Your task to perform on an android device: Go to settings Image 0: 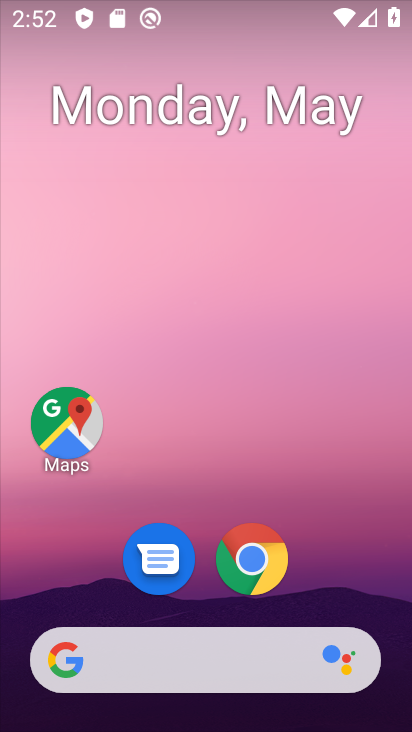
Step 0: drag from (284, 666) to (211, 36)
Your task to perform on an android device: Go to settings Image 1: 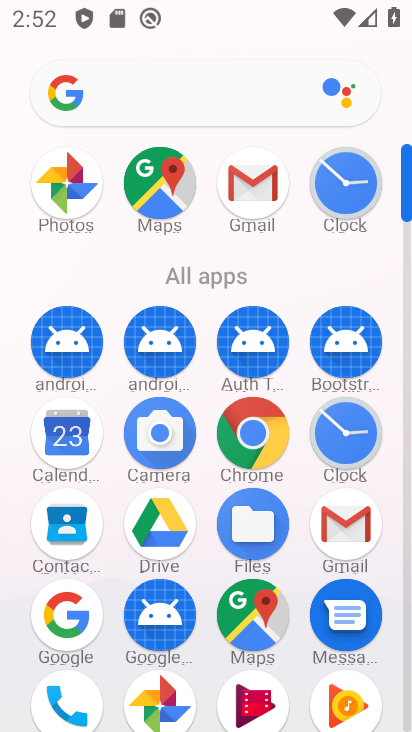
Step 1: click (299, 213)
Your task to perform on an android device: Go to settings Image 2: 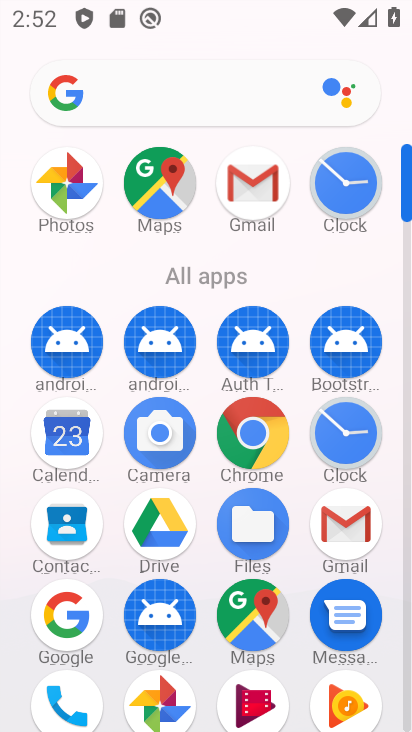
Step 2: drag from (327, 461) to (345, 107)
Your task to perform on an android device: Go to settings Image 3: 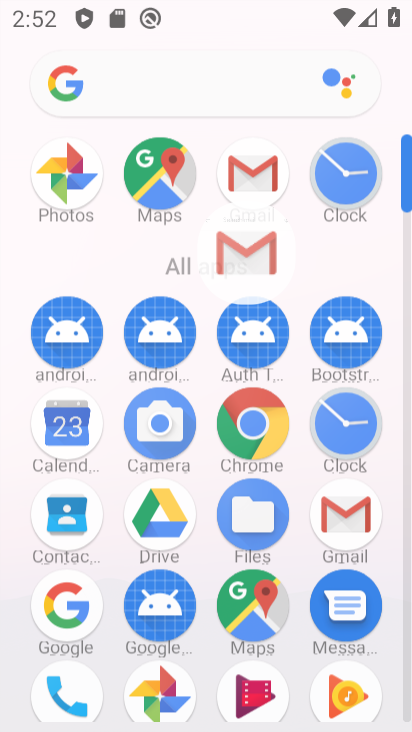
Step 3: drag from (266, 396) to (254, 131)
Your task to perform on an android device: Go to settings Image 4: 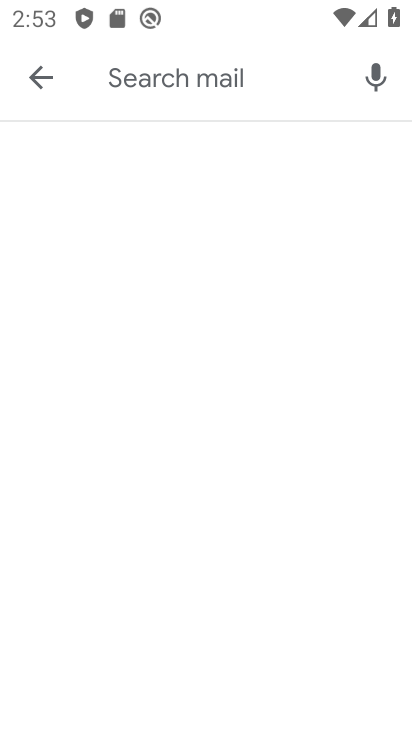
Step 4: click (33, 78)
Your task to perform on an android device: Go to settings Image 5: 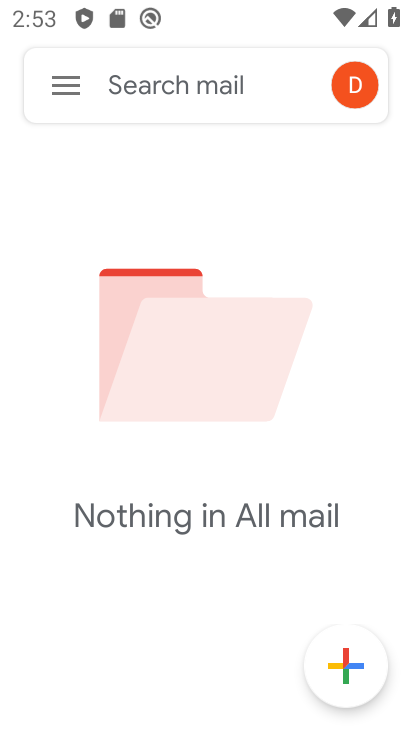
Step 5: click (57, 85)
Your task to perform on an android device: Go to settings Image 6: 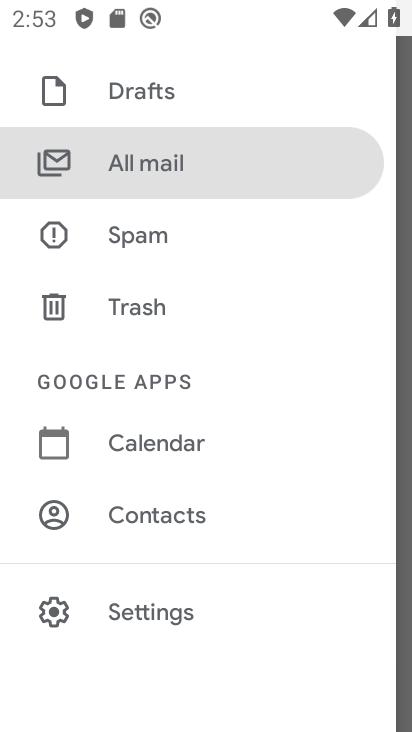
Step 6: click (149, 602)
Your task to perform on an android device: Go to settings Image 7: 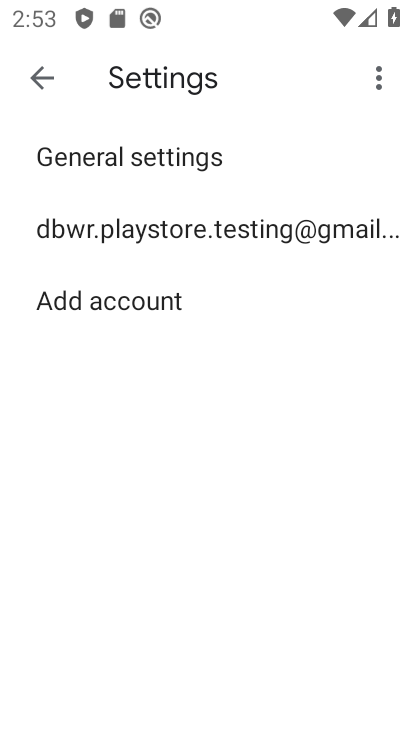
Step 7: click (152, 224)
Your task to perform on an android device: Go to settings Image 8: 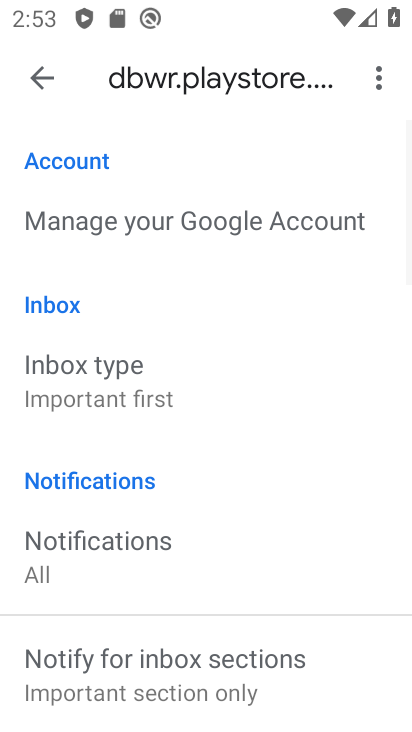
Step 8: drag from (131, 562) to (118, 126)
Your task to perform on an android device: Go to settings Image 9: 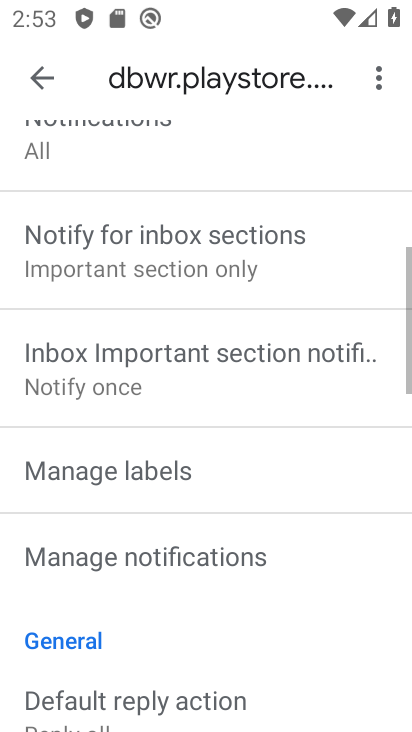
Step 9: drag from (109, 470) to (109, 146)
Your task to perform on an android device: Go to settings Image 10: 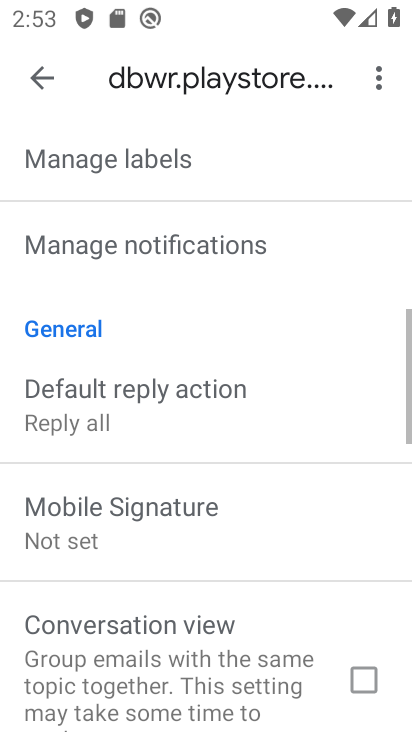
Step 10: drag from (128, 427) to (145, 104)
Your task to perform on an android device: Go to settings Image 11: 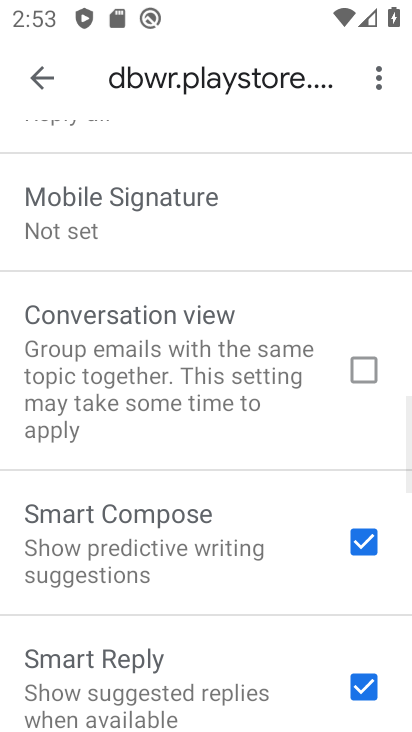
Step 11: drag from (170, 507) to (177, 148)
Your task to perform on an android device: Go to settings Image 12: 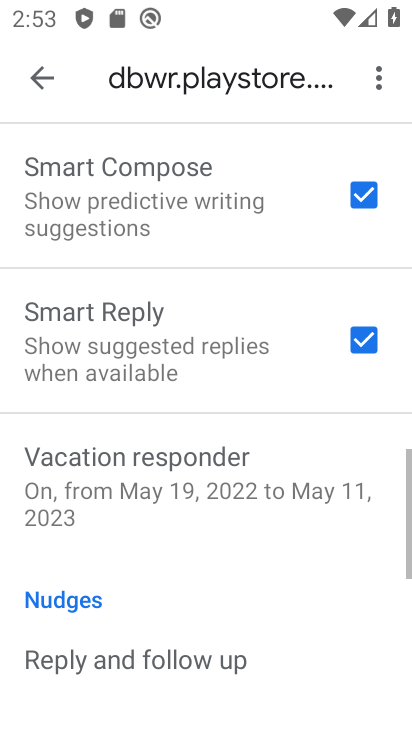
Step 12: drag from (169, 230) to (139, 119)
Your task to perform on an android device: Go to settings Image 13: 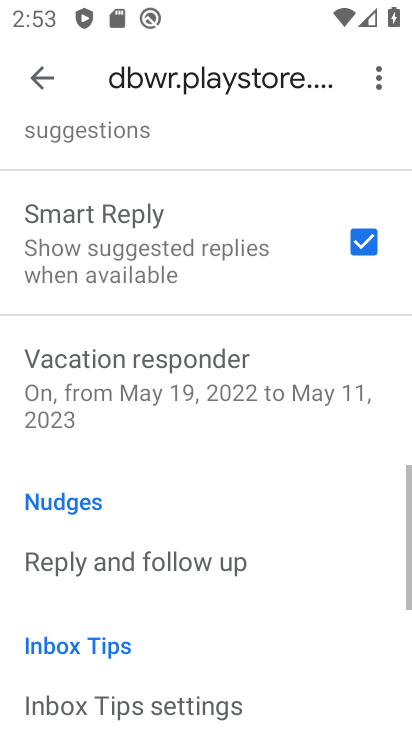
Step 13: drag from (157, 548) to (154, 177)
Your task to perform on an android device: Go to settings Image 14: 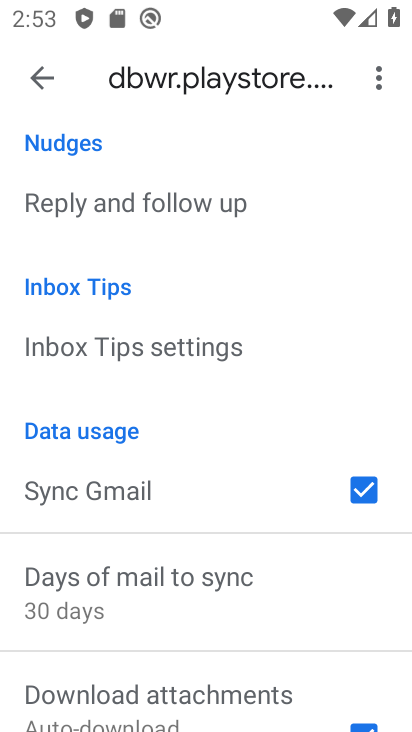
Step 14: click (44, 77)
Your task to perform on an android device: Go to settings Image 15: 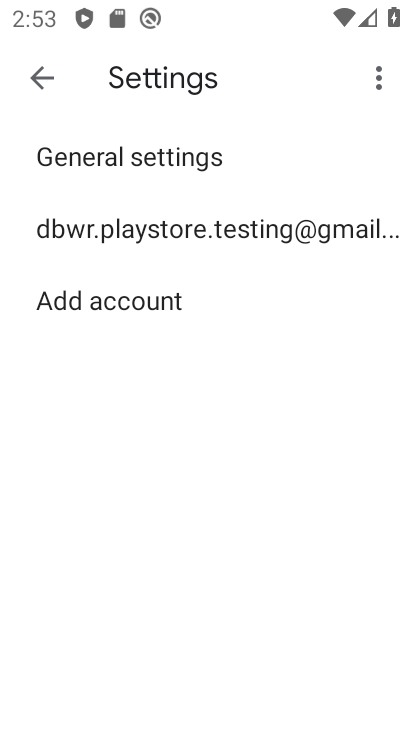
Step 15: click (40, 78)
Your task to perform on an android device: Go to settings Image 16: 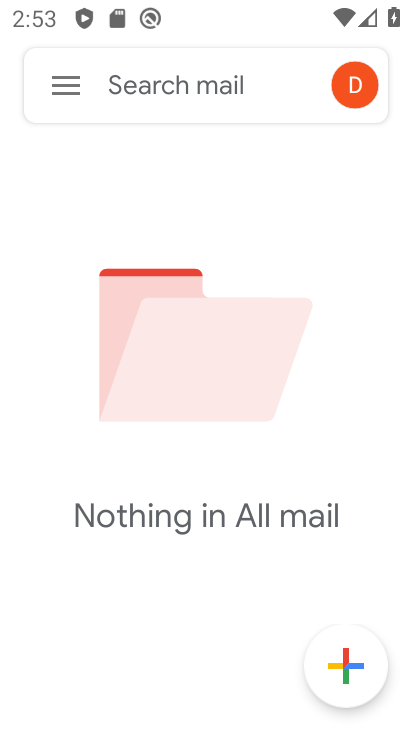
Step 16: click (66, 88)
Your task to perform on an android device: Go to settings Image 17: 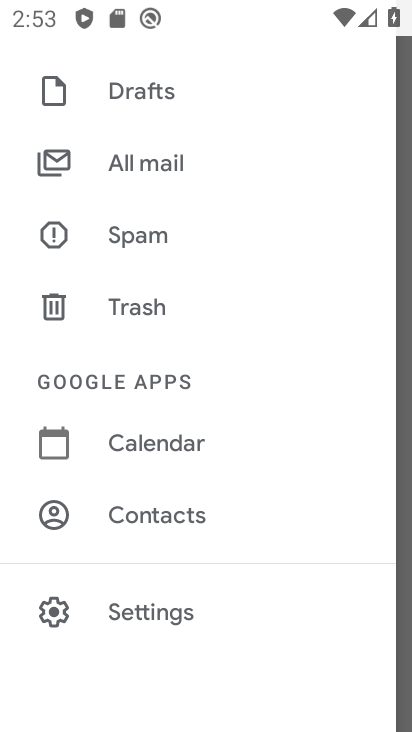
Step 17: task complete